Your task to perform on an android device: Go to calendar. Show me events next week Image 0: 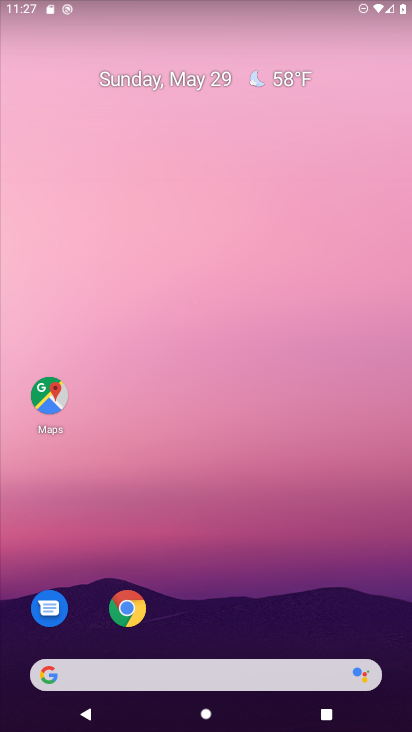
Step 0: drag from (299, 627) to (302, 191)
Your task to perform on an android device: Go to calendar. Show me events next week Image 1: 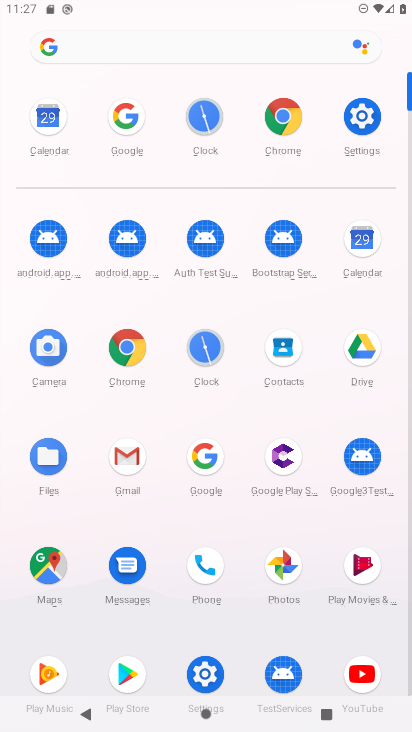
Step 1: click (49, 112)
Your task to perform on an android device: Go to calendar. Show me events next week Image 2: 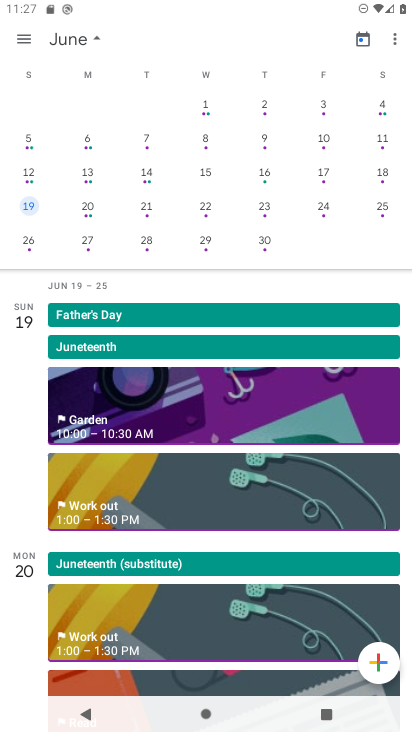
Step 2: click (32, 142)
Your task to perform on an android device: Go to calendar. Show me events next week Image 3: 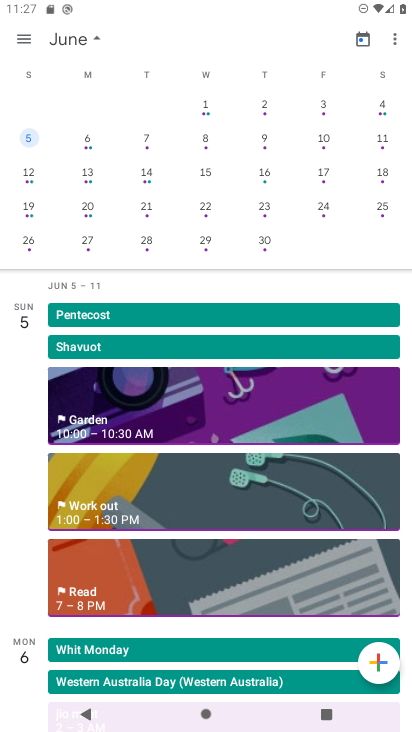
Step 3: task complete